Your task to perform on an android device: toggle improve location accuracy Image 0: 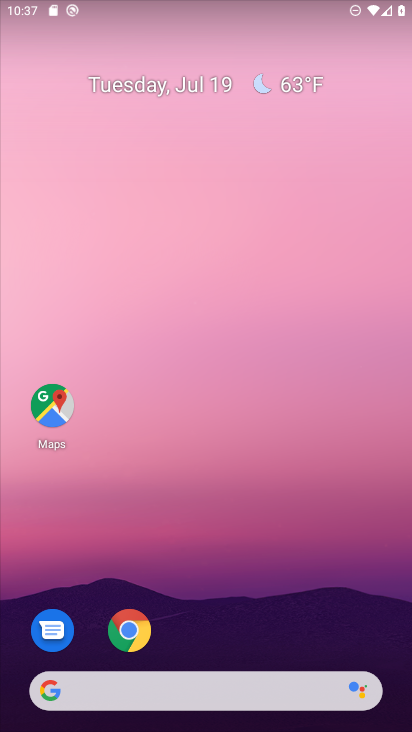
Step 0: drag from (172, 681) to (149, 109)
Your task to perform on an android device: toggle improve location accuracy Image 1: 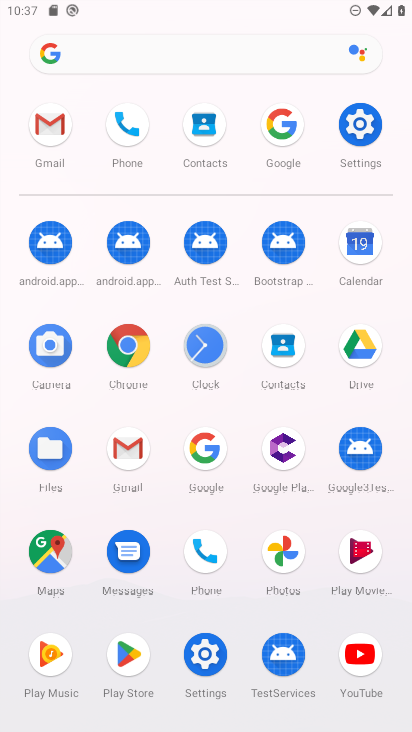
Step 1: click (359, 122)
Your task to perform on an android device: toggle improve location accuracy Image 2: 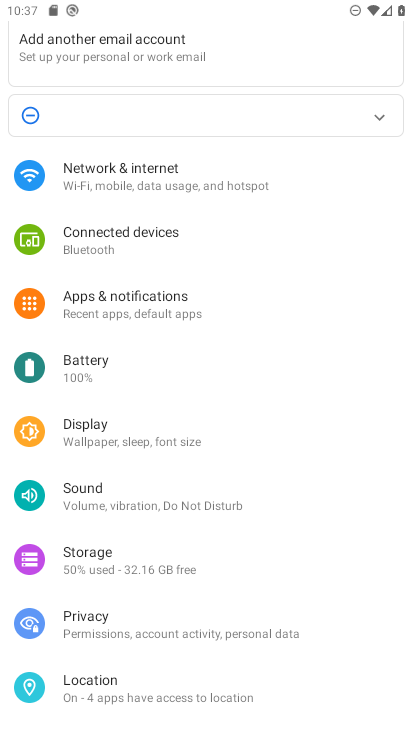
Step 2: click (104, 692)
Your task to perform on an android device: toggle improve location accuracy Image 3: 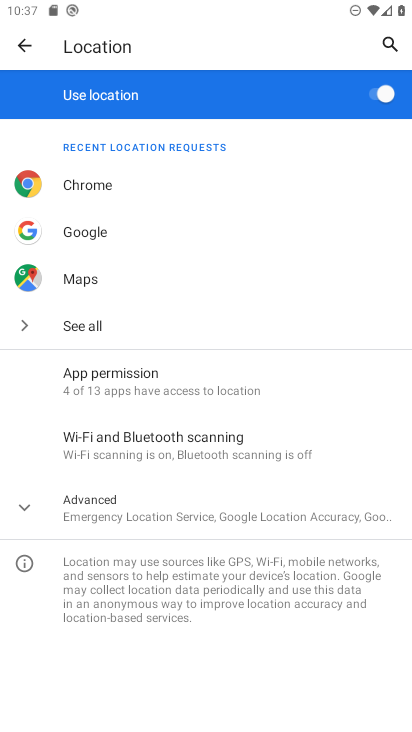
Step 3: click (129, 512)
Your task to perform on an android device: toggle improve location accuracy Image 4: 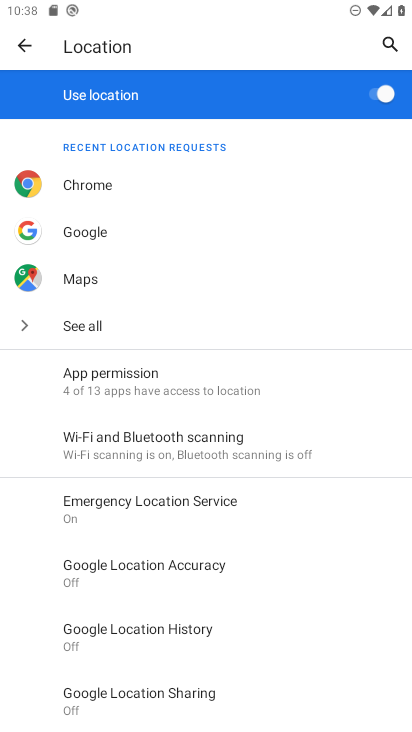
Step 4: click (122, 567)
Your task to perform on an android device: toggle improve location accuracy Image 5: 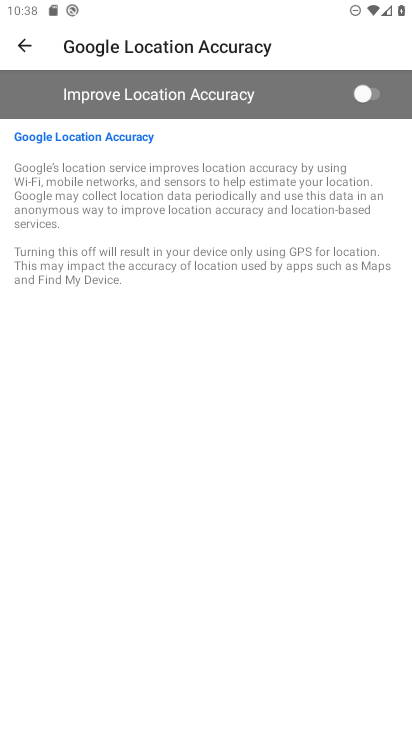
Step 5: click (359, 92)
Your task to perform on an android device: toggle improve location accuracy Image 6: 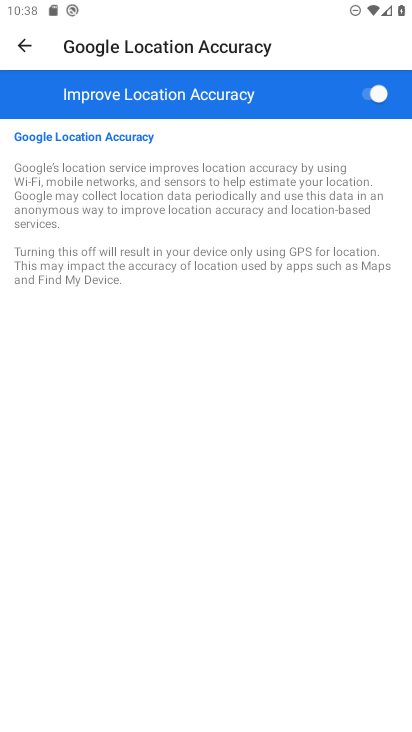
Step 6: task complete